Your task to perform on an android device: Open the map Image 0: 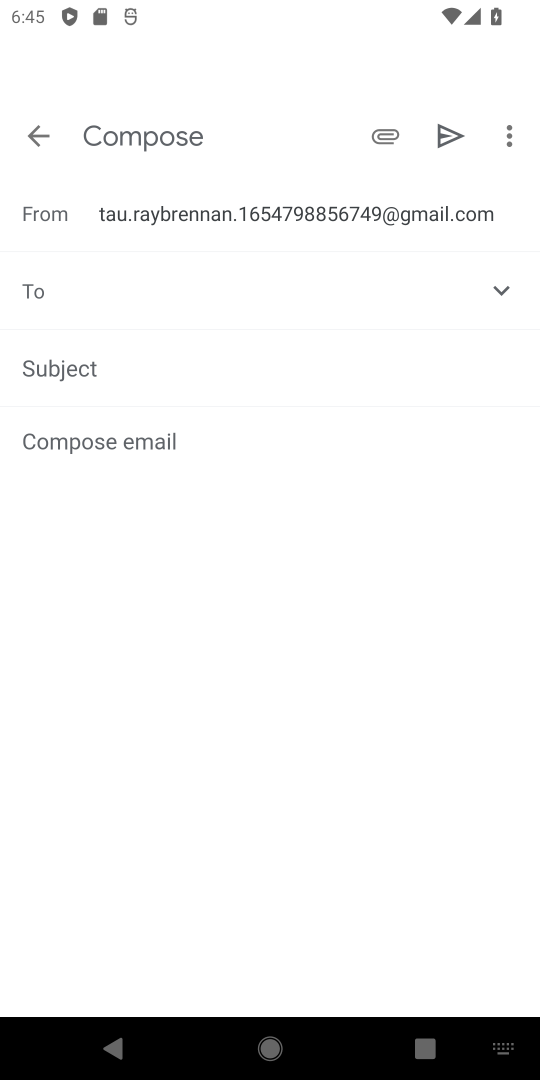
Step 0: click (45, 134)
Your task to perform on an android device: Open the map Image 1: 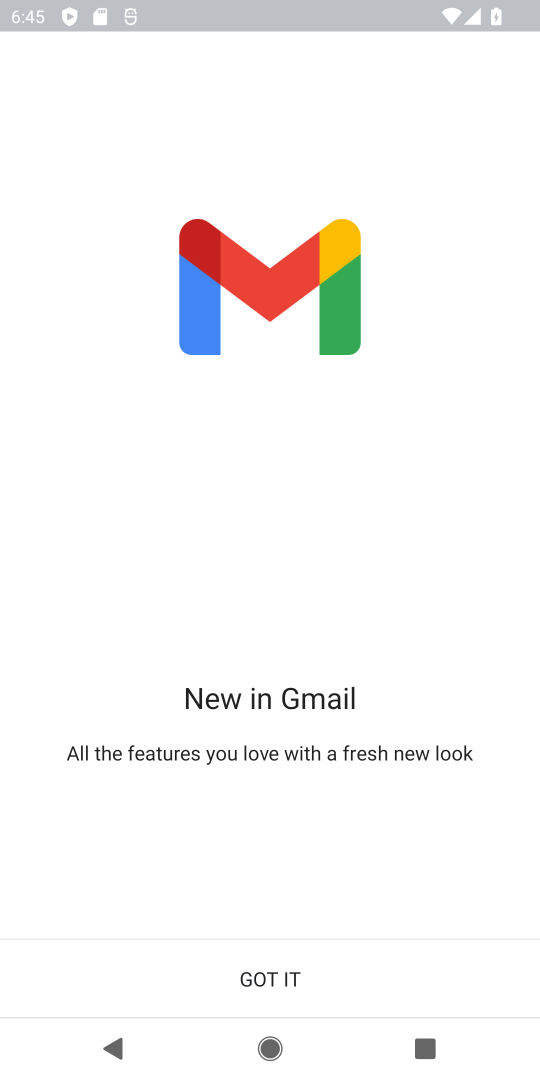
Step 1: press home button
Your task to perform on an android device: Open the map Image 2: 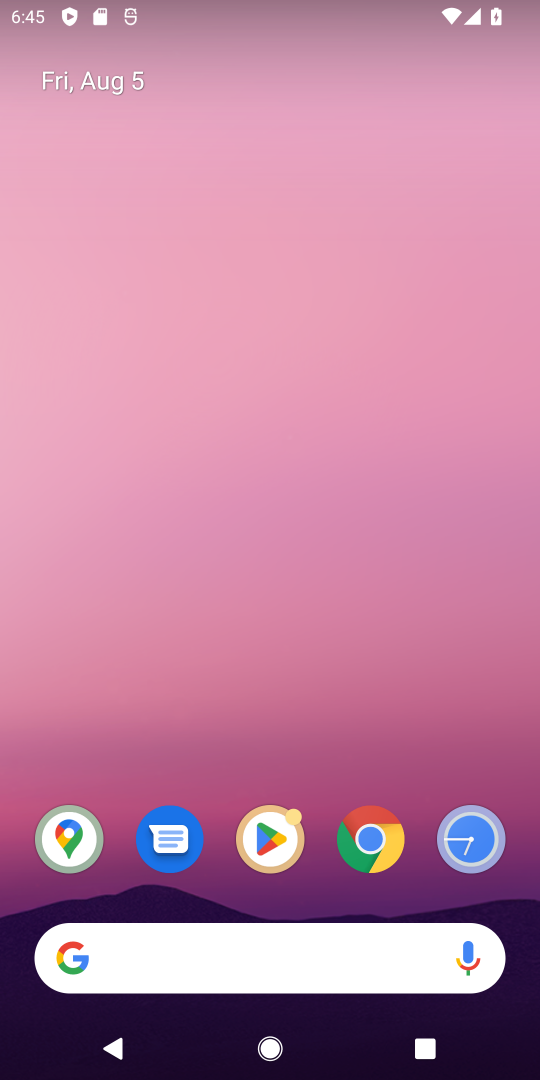
Step 2: drag from (310, 907) to (306, 4)
Your task to perform on an android device: Open the map Image 3: 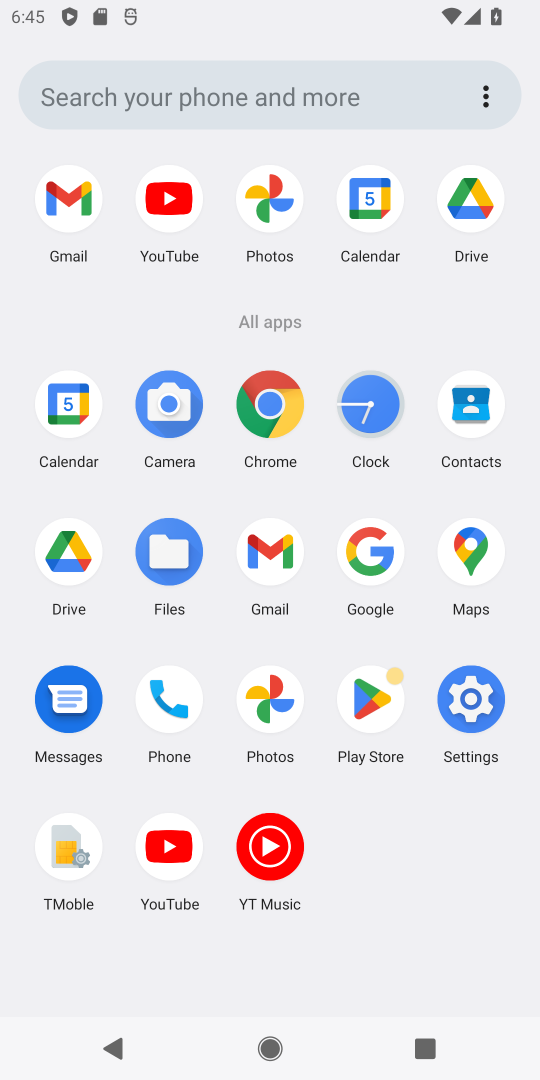
Step 3: click (481, 545)
Your task to perform on an android device: Open the map Image 4: 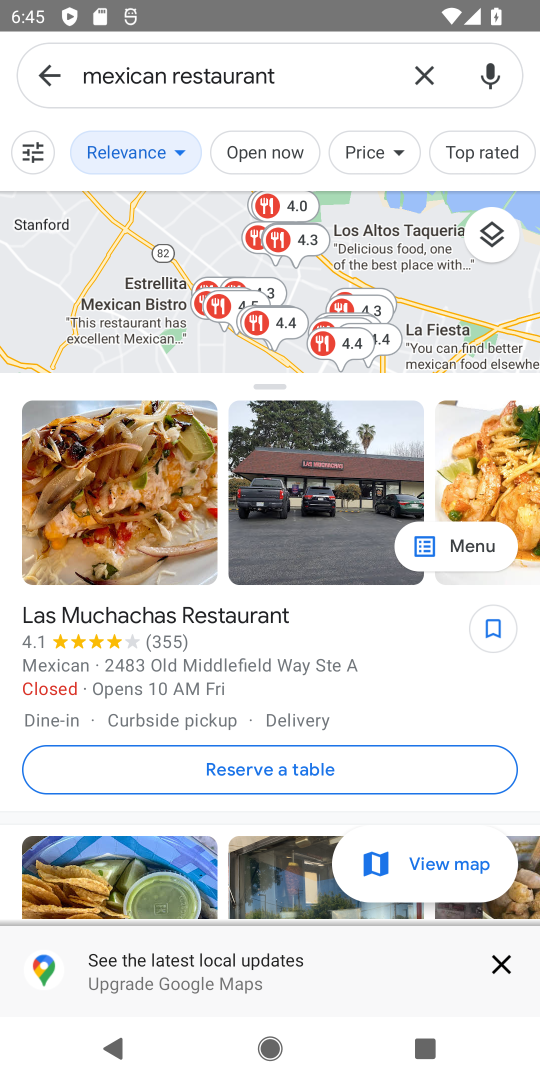
Step 4: task complete